Your task to perform on an android device: allow notifications from all sites in the chrome app Image 0: 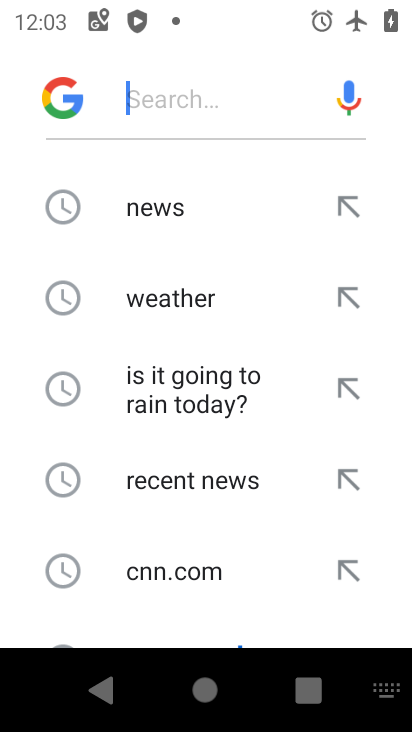
Step 0: press home button
Your task to perform on an android device: allow notifications from all sites in the chrome app Image 1: 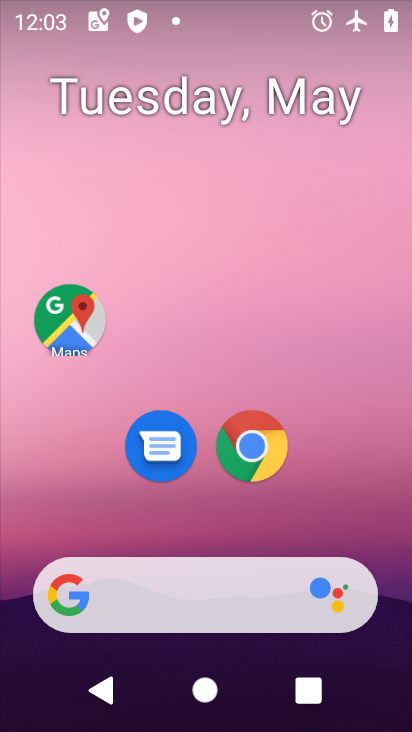
Step 1: click (267, 438)
Your task to perform on an android device: allow notifications from all sites in the chrome app Image 2: 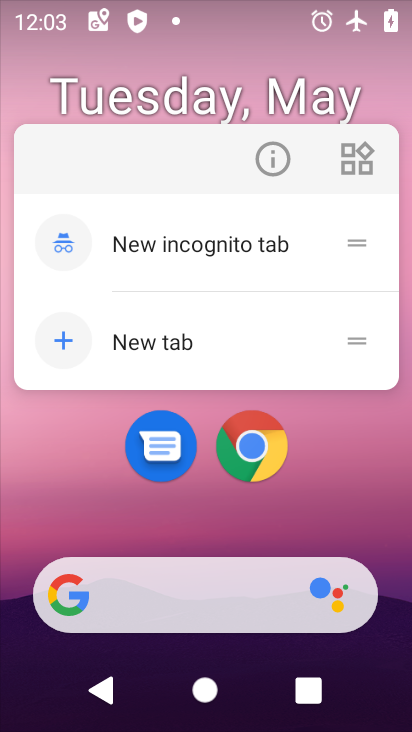
Step 2: click (262, 435)
Your task to perform on an android device: allow notifications from all sites in the chrome app Image 3: 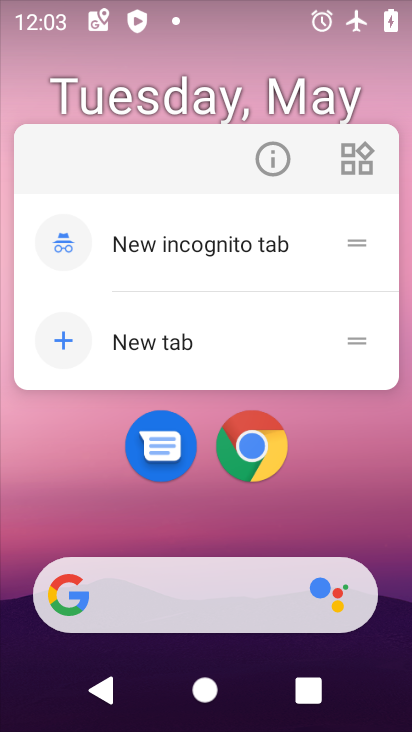
Step 3: click (254, 444)
Your task to perform on an android device: allow notifications from all sites in the chrome app Image 4: 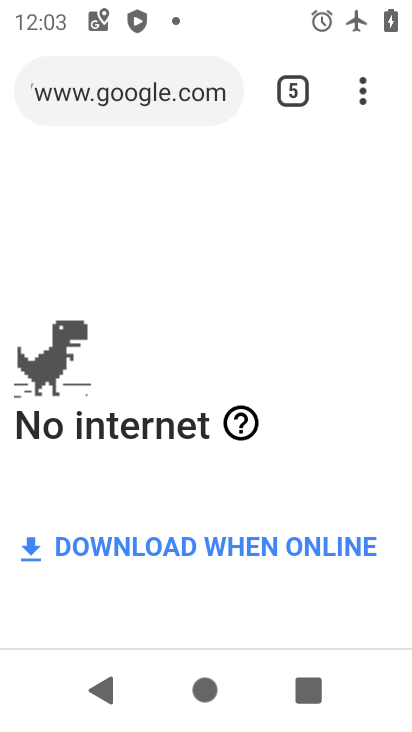
Step 4: click (356, 89)
Your task to perform on an android device: allow notifications from all sites in the chrome app Image 5: 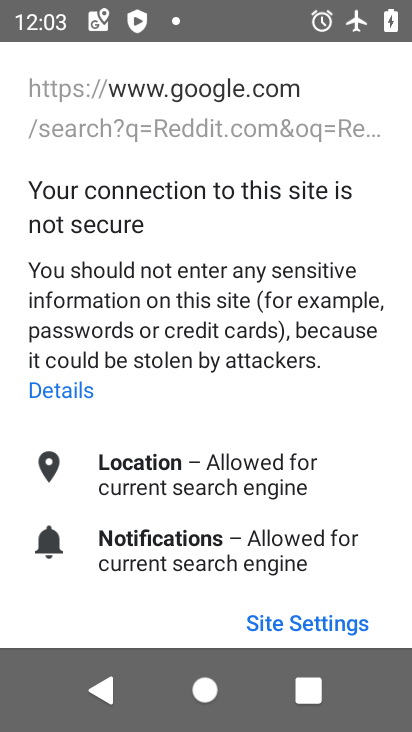
Step 5: press back button
Your task to perform on an android device: allow notifications from all sites in the chrome app Image 6: 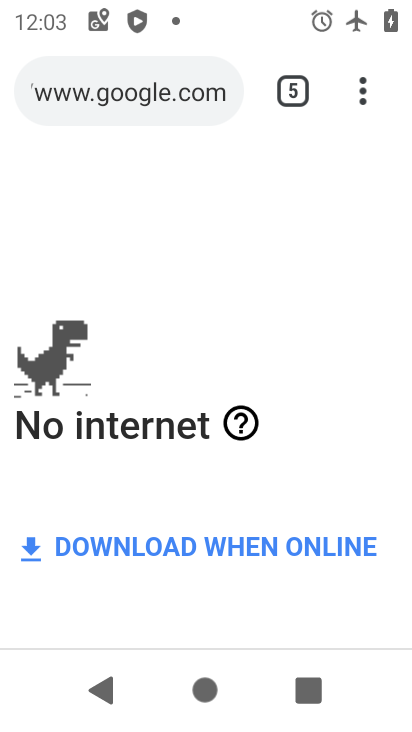
Step 6: click (377, 77)
Your task to perform on an android device: allow notifications from all sites in the chrome app Image 7: 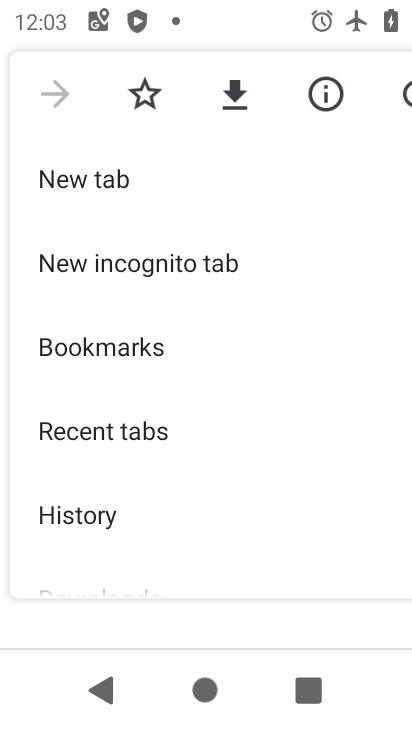
Step 7: drag from (184, 561) to (206, 245)
Your task to perform on an android device: allow notifications from all sites in the chrome app Image 8: 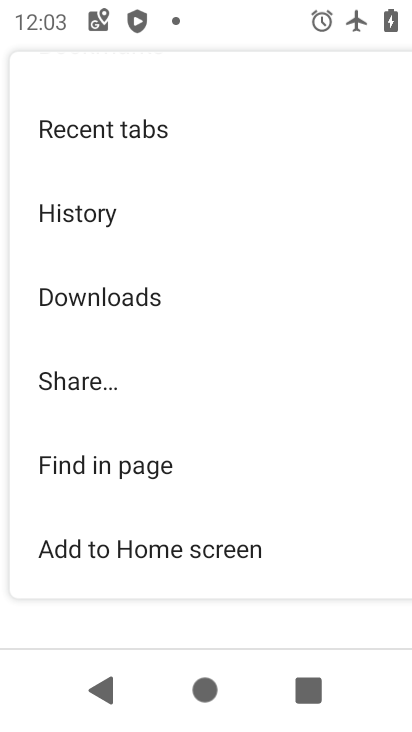
Step 8: drag from (111, 546) to (143, 251)
Your task to perform on an android device: allow notifications from all sites in the chrome app Image 9: 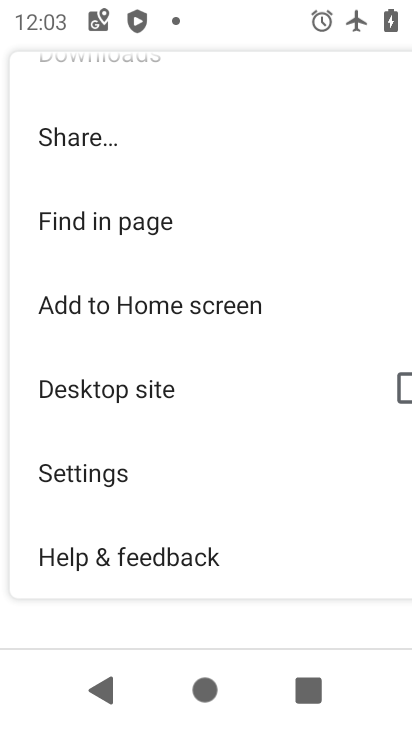
Step 9: click (92, 471)
Your task to perform on an android device: allow notifications from all sites in the chrome app Image 10: 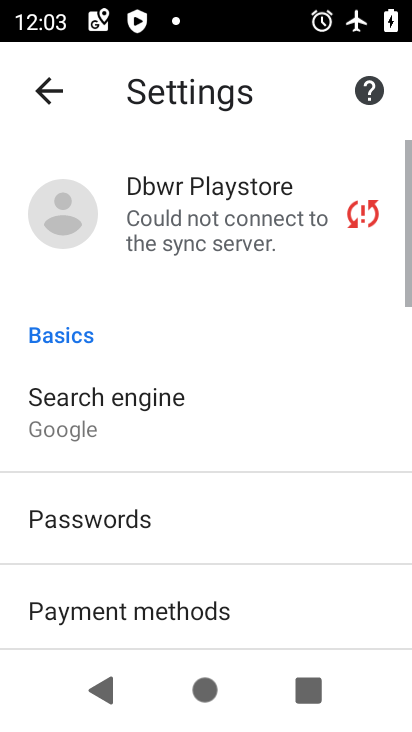
Step 10: drag from (141, 561) to (213, 180)
Your task to perform on an android device: allow notifications from all sites in the chrome app Image 11: 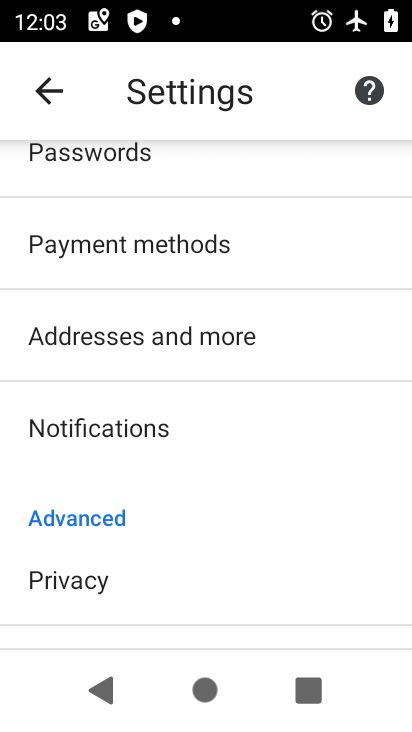
Step 11: drag from (140, 579) to (190, 298)
Your task to perform on an android device: allow notifications from all sites in the chrome app Image 12: 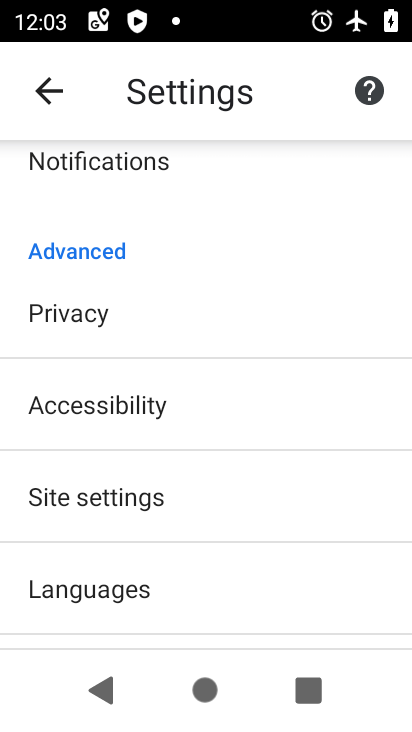
Step 12: click (108, 496)
Your task to perform on an android device: allow notifications from all sites in the chrome app Image 13: 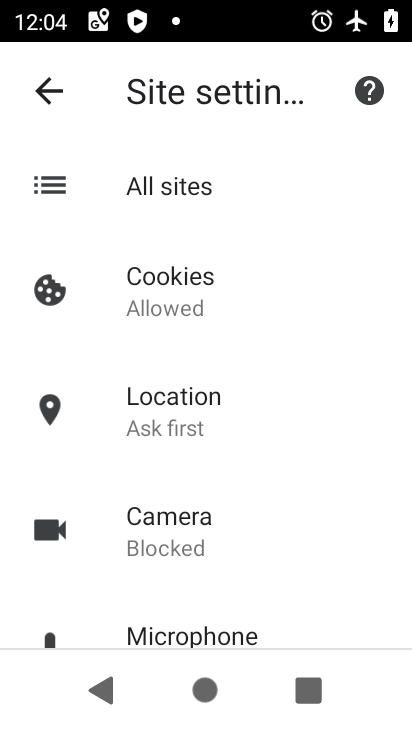
Step 13: click (192, 279)
Your task to perform on an android device: allow notifications from all sites in the chrome app Image 14: 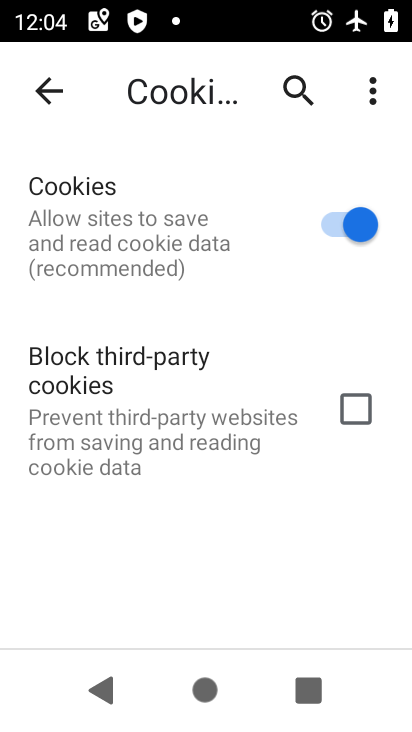
Step 14: task complete